Your task to perform on an android device: Go to Amazon Image 0: 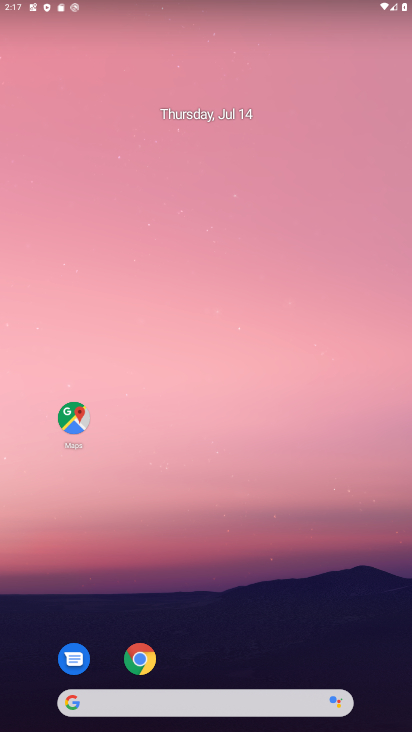
Step 0: press home button
Your task to perform on an android device: Go to Amazon Image 1: 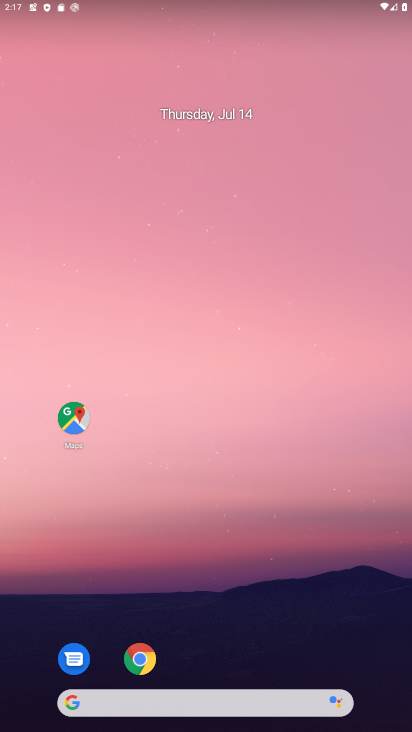
Step 1: click (71, 711)
Your task to perform on an android device: Go to Amazon Image 2: 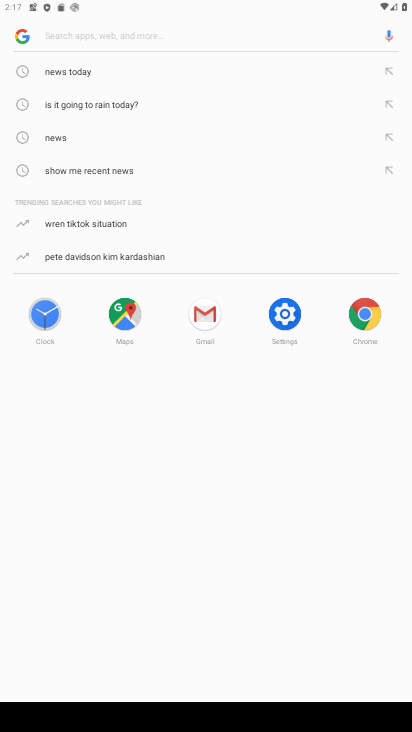
Step 2: type " Amazon"
Your task to perform on an android device: Go to Amazon Image 3: 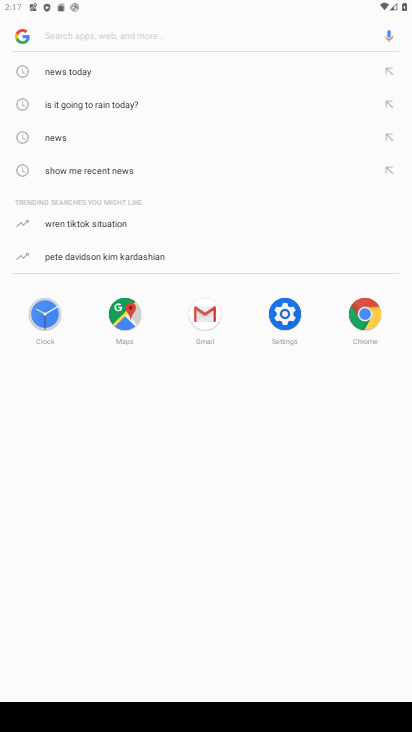
Step 3: click (189, 37)
Your task to perform on an android device: Go to Amazon Image 4: 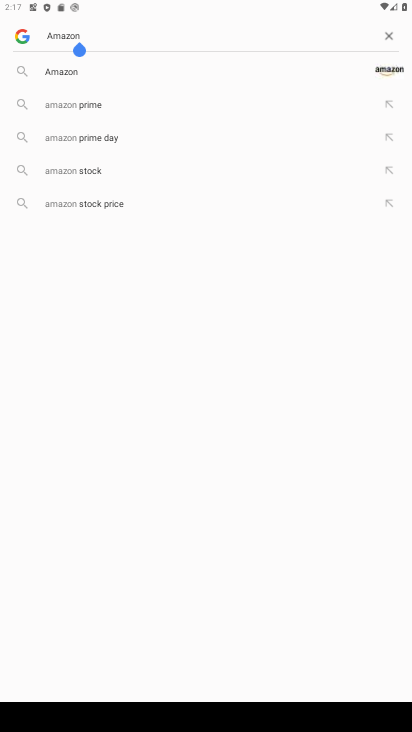
Step 4: click (63, 75)
Your task to perform on an android device: Go to Amazon Image 5: 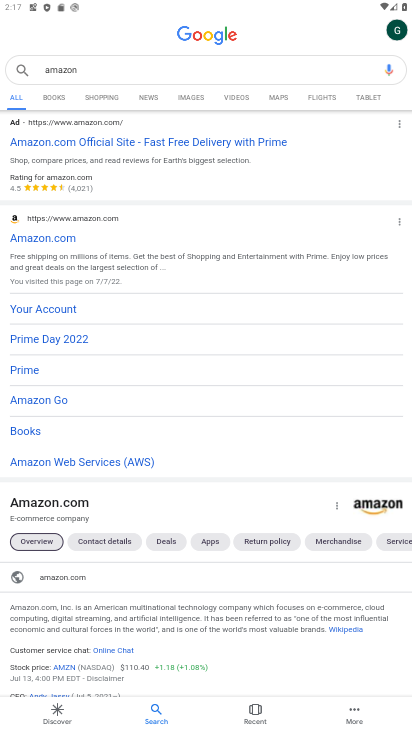
Step 5: click (57, 140)
Your task to perform on an android device: Go to Amazon Image 6: 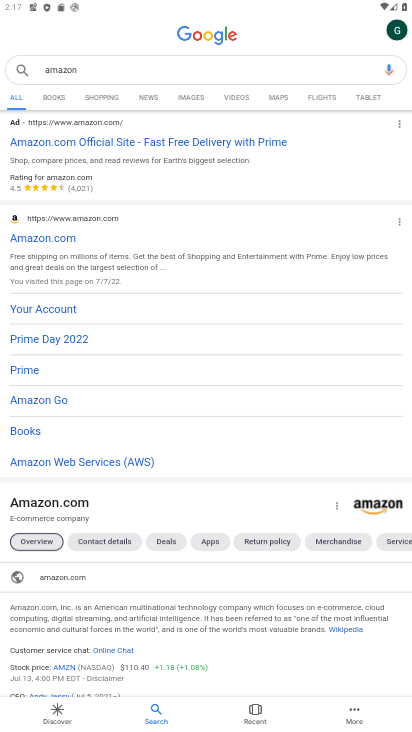
Step 6: click (80, 139)
Your task to perform on an android device: Go to Amazon Image 7: 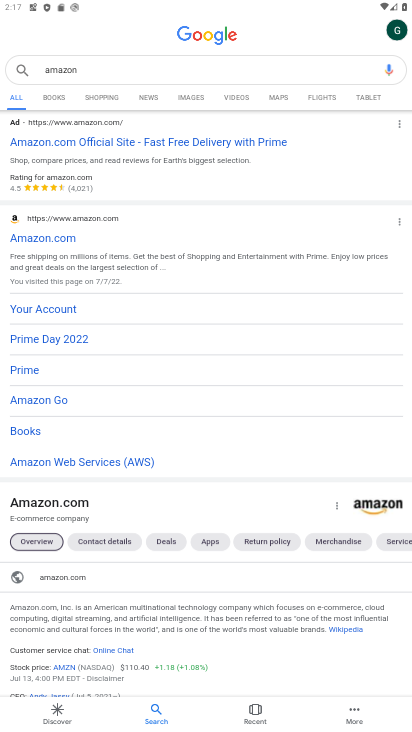
Step 7: click (76, 142)
Your task to perform on an android device: Go to Amazon Image 8: 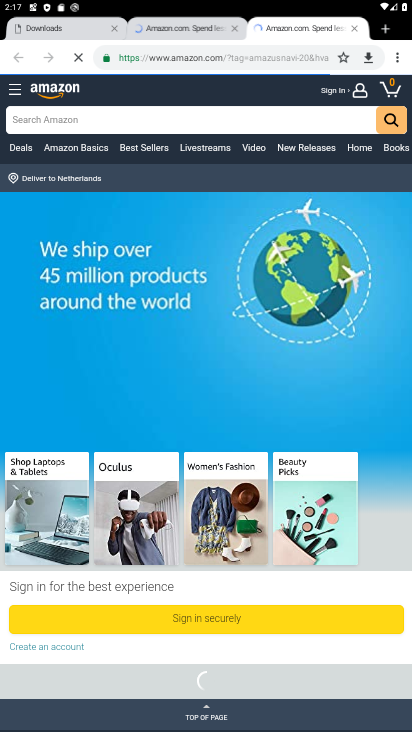
Step 8: task complete